Your task to perform on an android device: add a contact in the contacts app Image 0: 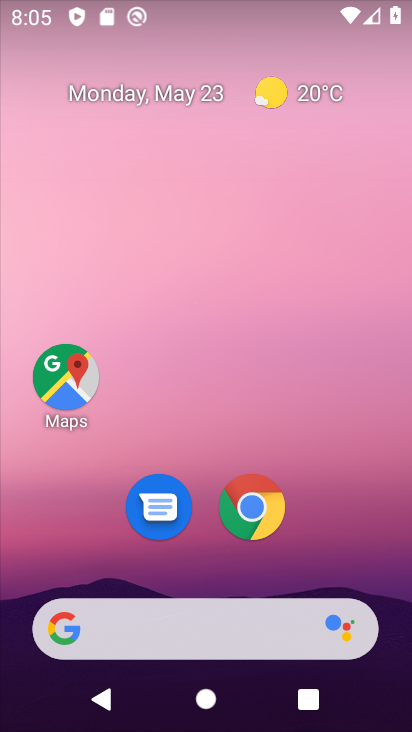
Step 0: drag from (361, 586) to (407, 5)
Your task to perform on an android device: add a contact in the contacts app Image 1: 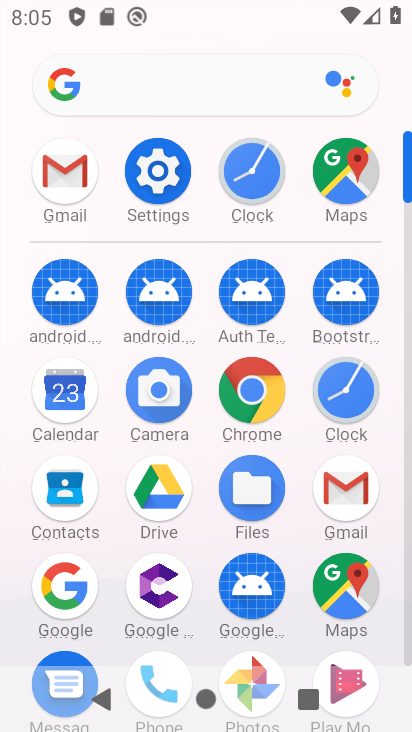
Step 1: click (64, 491)
Your task to perform on an android device: add a contact in the contacts app Image 2: 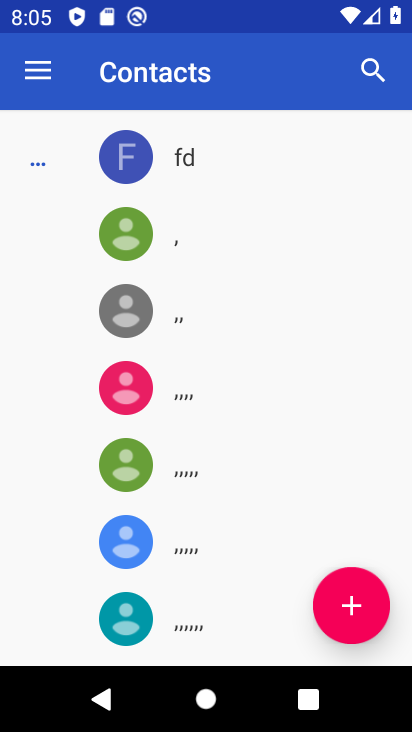
Step 2: click (350, 606)
Your task to perform on an android device: add a contact in the contacts app Image 3: 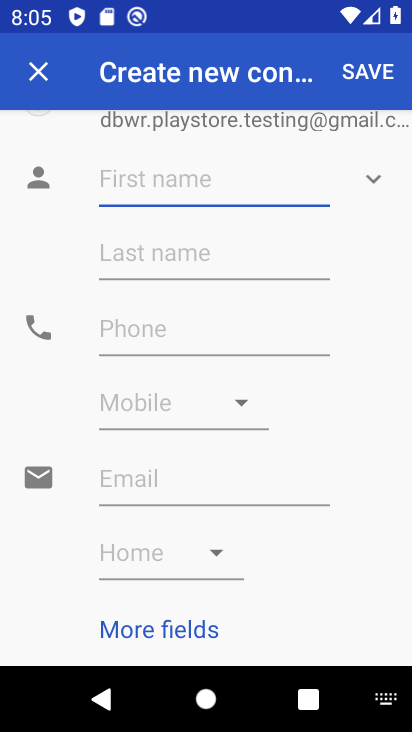
Step 3: type "namcy"
Your task to perform on an android device: add a contact in the contacts app Image 4: 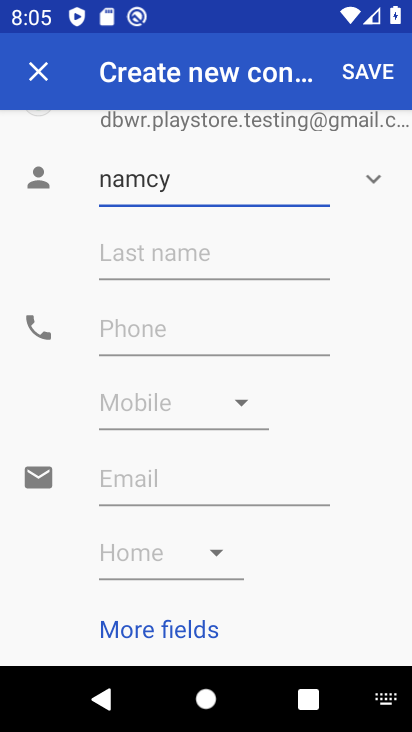
Step 4: click (168, 340)
Your task to perform on an android device: add a contact in the contacts app Image 5: 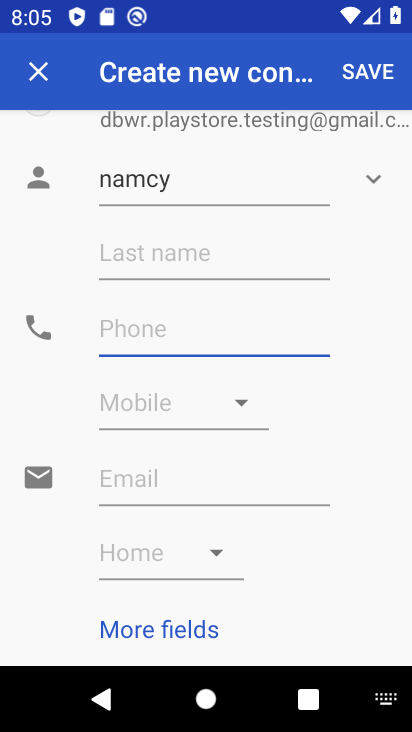
Step 5: type "9877668887"
Your task to perform on an android device: add a contact in the contacts app Image 6: 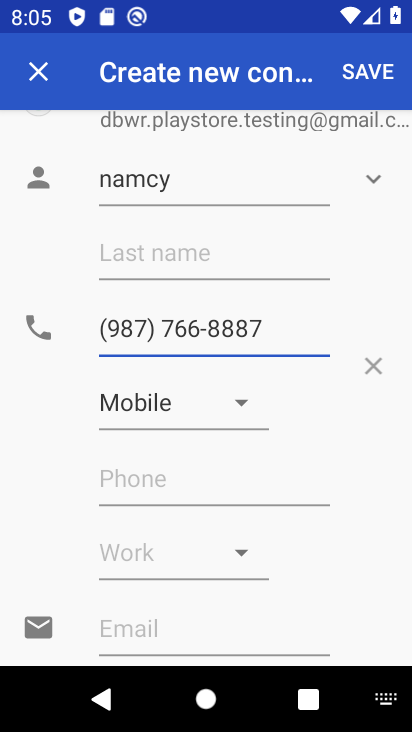
Step 6: click (392, 72)
Your task to perform on an android device: add a contact in the contacts app Image 7: 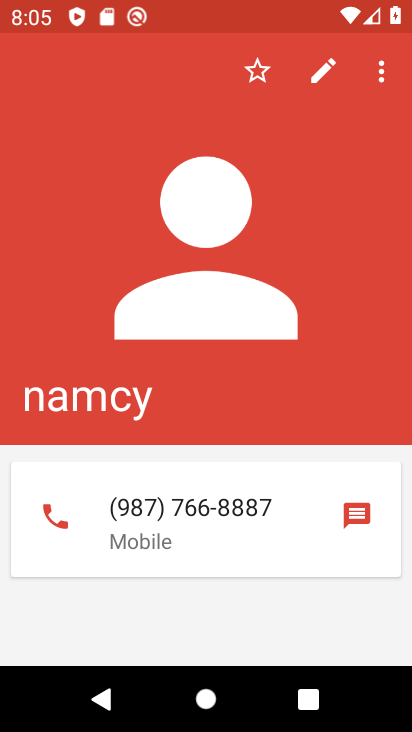
Step 7: task complete